Your task to perform on an android device: toggle show notifications on the lock screen Image 0: 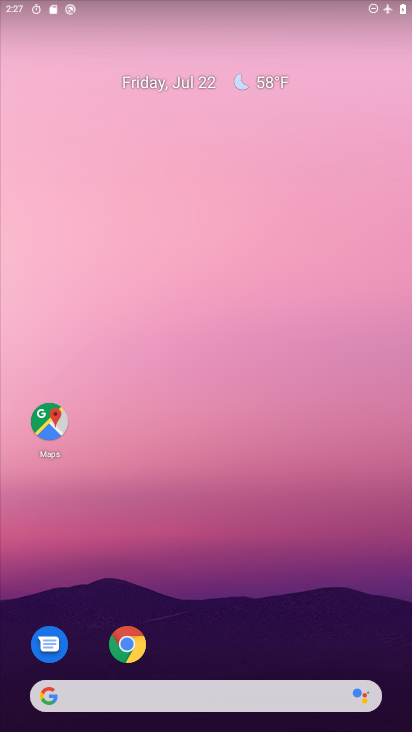
Step 0: drag from (206, 649) to (212, 239)
Your task to perform on an android device: toggle show notifications on the lock screen Image 1: 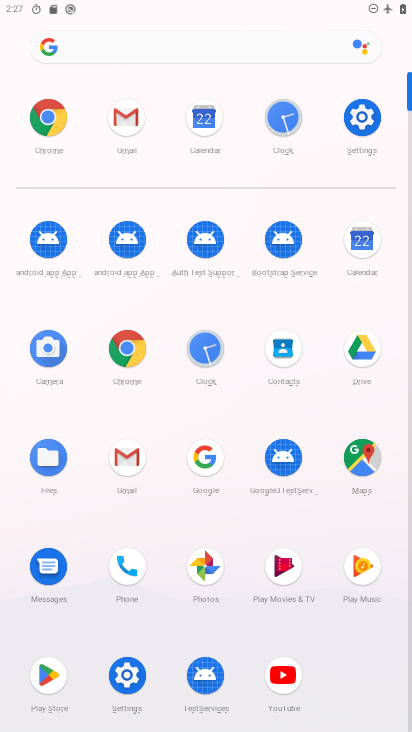
Step 1: click (367, 137)
Your task to perform on an android device: toggle show notifications on the lock screen Image 2: 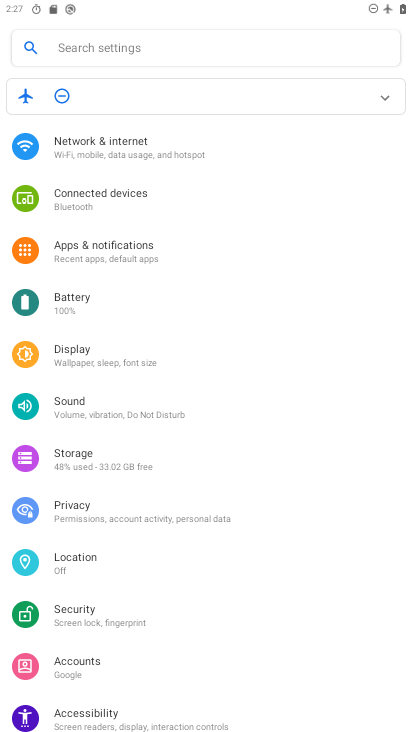
Step 2: click (172, 263)
Your task to perform on an android device: toggle show notifications on the lock screen Image 3: 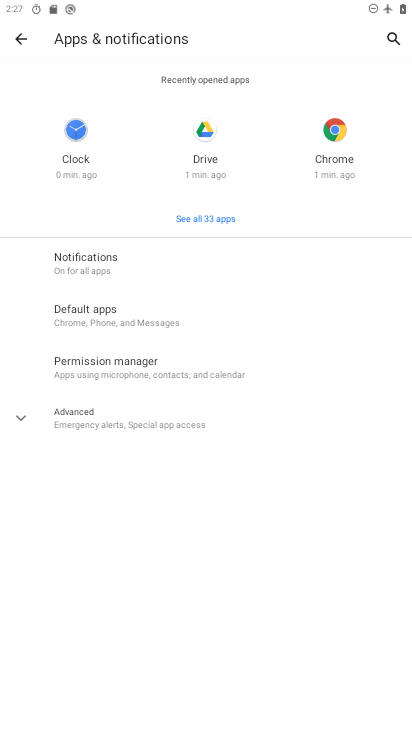
Step 3: click (122, 273)
Your task to perform on an android device: toggle show notifications on the lock screen Image 4: 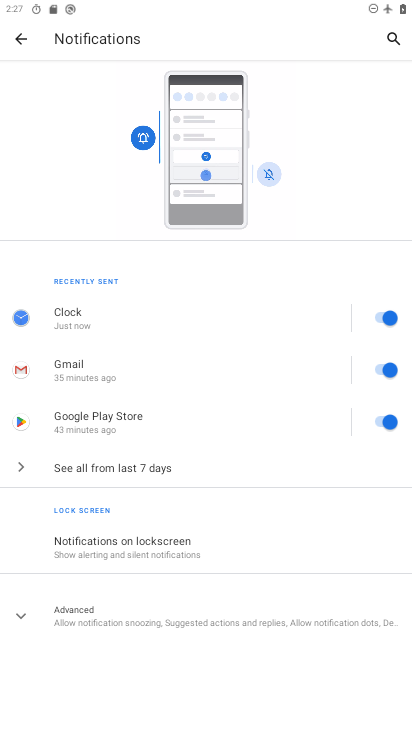
Step 4: click (194, 557)
Your task to perform on an android device: toggle show notifications on the lock screen Image 5: 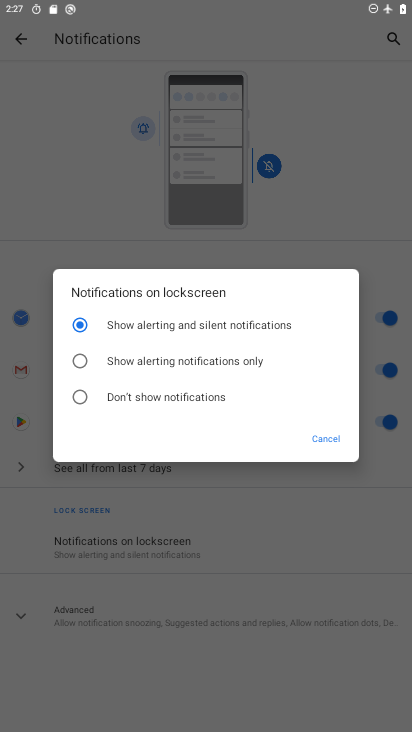
Step 5: click (174, 398)
Your task to perform on an android device: toggle show notifications on the lock screen Image 6: 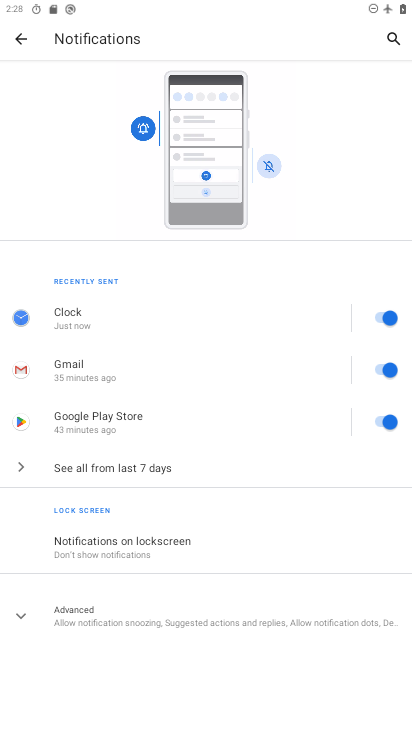
Step 6: click (175, 554)
Your task to perform on an android device: toggle show notifications on the lock screen Image 7: 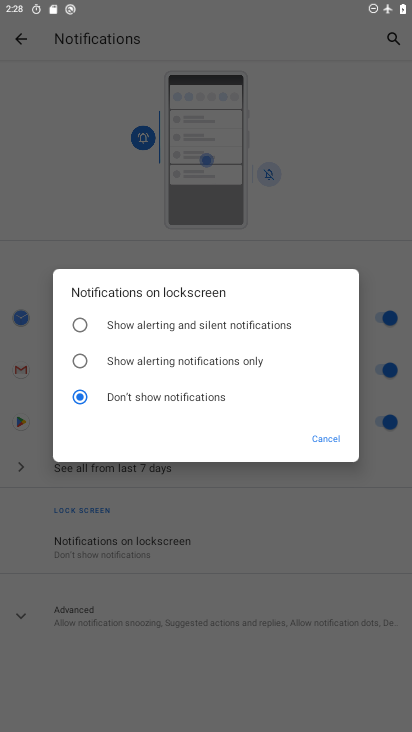
Step 7: click (139, 330)
Your task to perform on an android device: toggle show notifications on the lock screen Image 8: 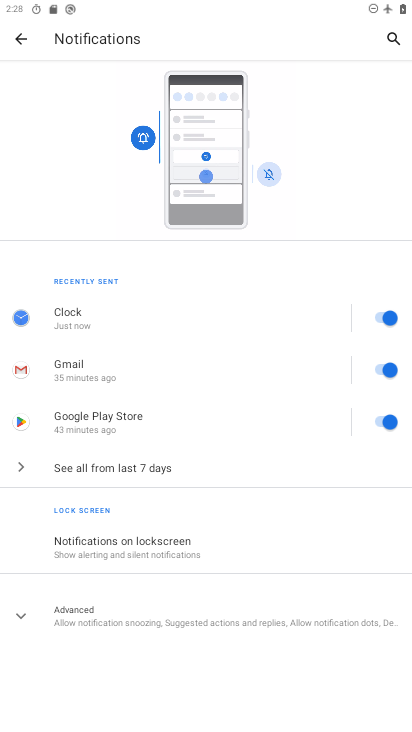
Step 8: task complete